Your task to perform on an android device: Open Chrome and go to the settings page Image 0: 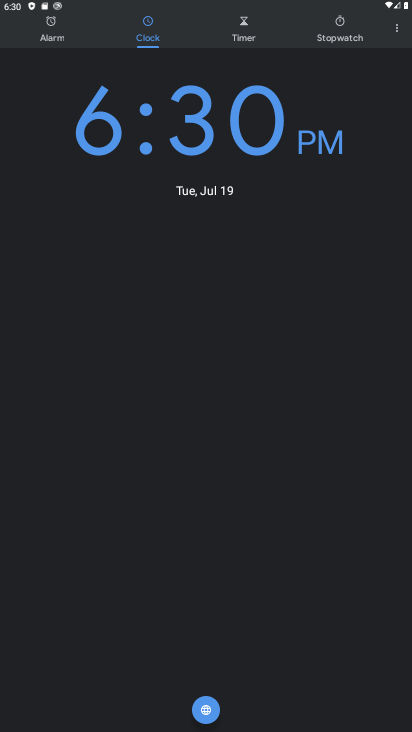
Step 0: press home button
Your task to perform on an android device: Open Chrome and go to the settings page Image 1: 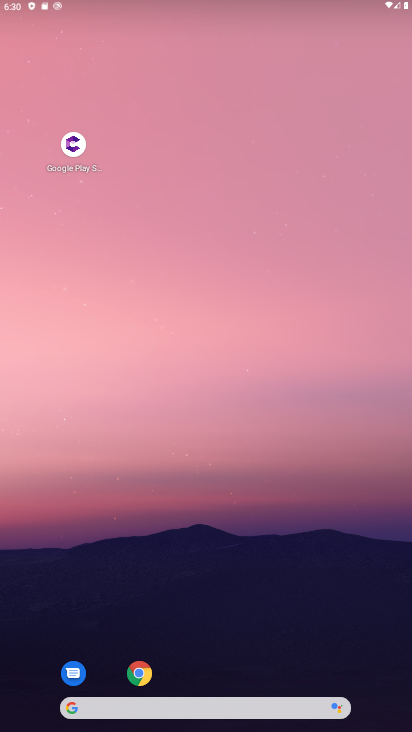
Step 1: drag from (371, 662) to (209, 16)
Your task to perform on an android device: Open Chrome and go to the settings page Image 2: 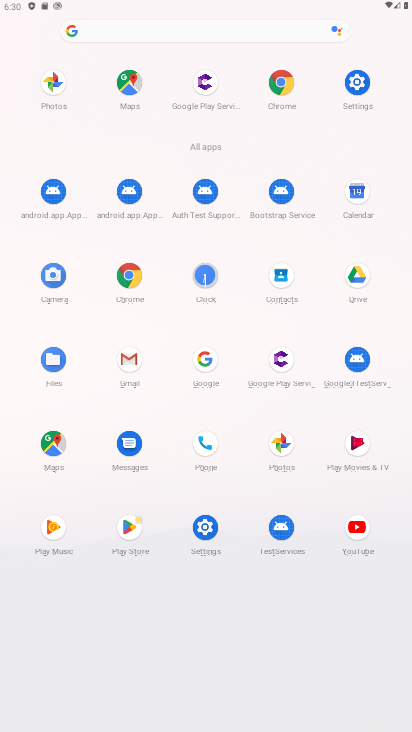
Step 2: click (134, 280)
Your task to perform on an android device: Open Chrome and go to the settings page Image 3: 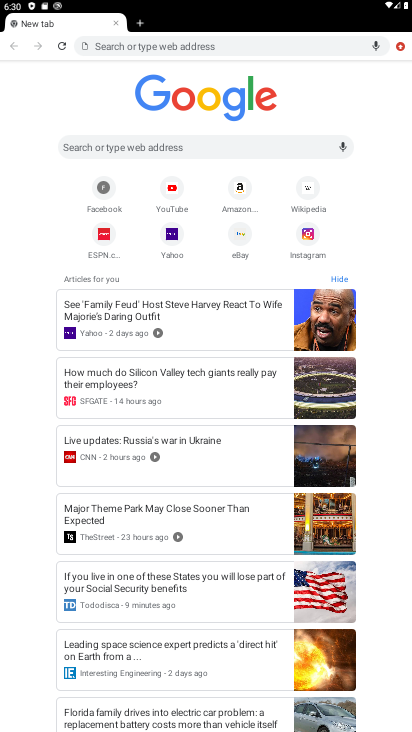
Step 3: click (396, 44)
Your task to perform on an android device: Open Chrome and go to the settings page Image 4: 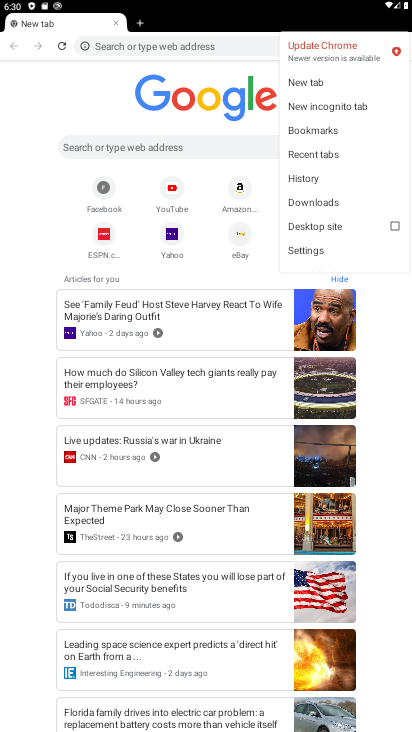
Step 4: click (305, 247)
Your task to perform on an android device: Open Chrome and go to the settings page Image 5: 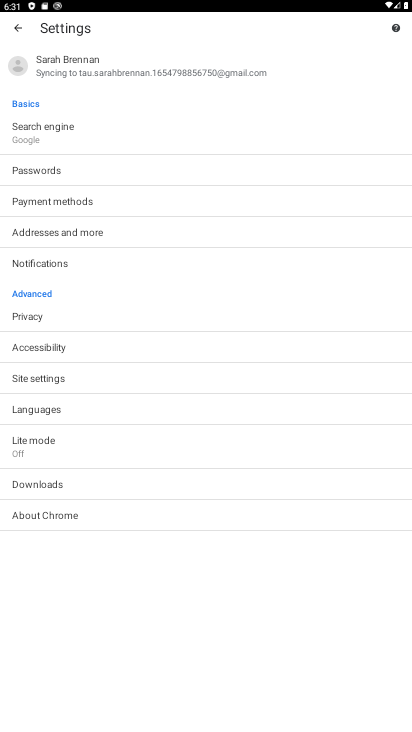
Step 5: task complete